Your task to perform on an android device: Do I have any events this weekend? Image 0: 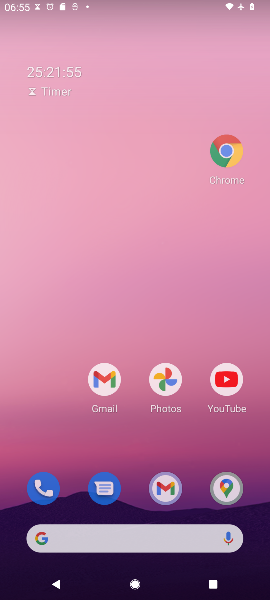
Step 0: press home button
Your task to perform on an android device: Do I have any events this weekend? Image 1: 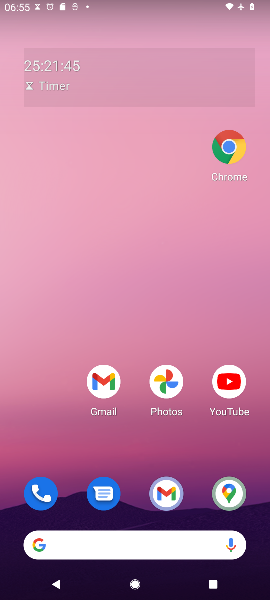
Step 1: drag from (133, 519) to (138, 41)
Your task to perform on an android device: Do I have any events this weekend? Image 2: 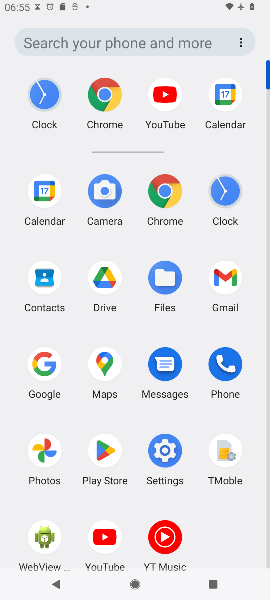
Step 2: click (228, 93)
Your task to perform on an android device: Do I have any events this weekend? Image 3: 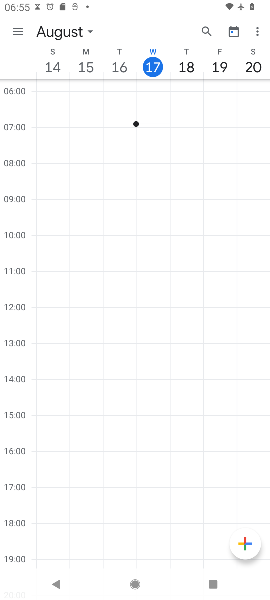
Step 3: click (17, 36)
Your task to perform on an android device: Do I have any events this weekend? Image 4: 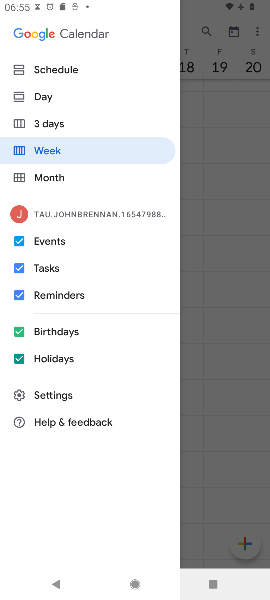
Step 4: click (44, 155)
Your task to perform on an android device: Do I have any events this weekend? Image 5: 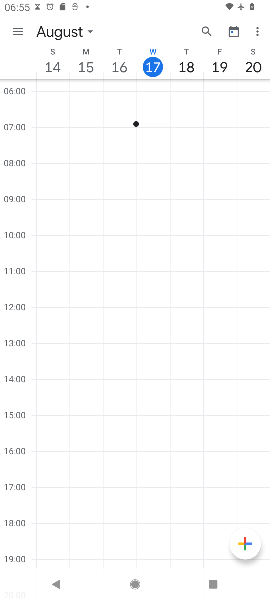
Step 5: task complete